Your task to perform on an android device: clear history in the chrome app Image 0: 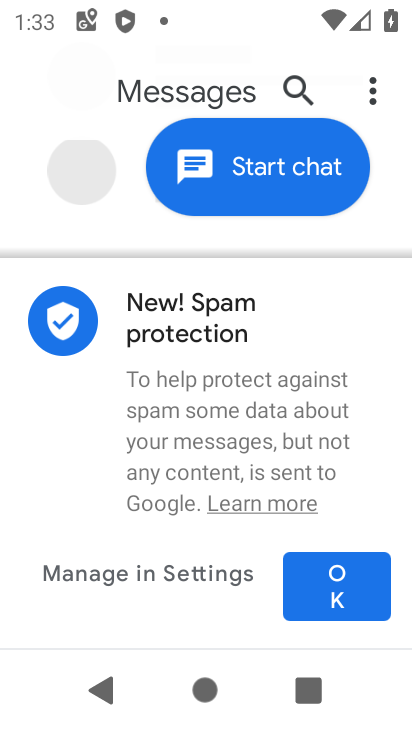
Step 0: press home button
Your task to perform on an android device: clear history in the chrome app Image 1: 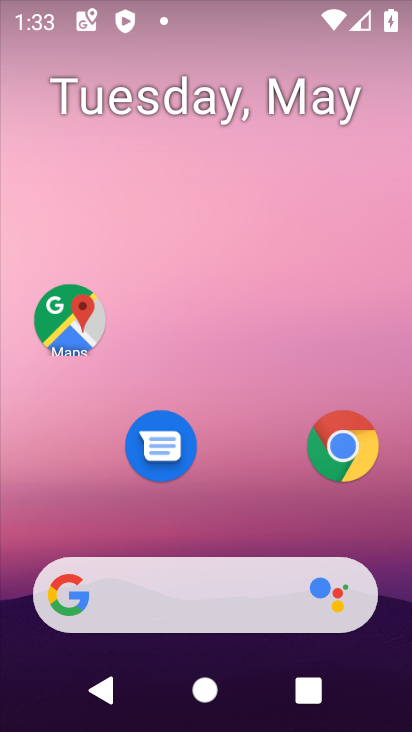
Step 1: click (323, 460)
Your task to perform on an android device: clear history in the chrome app Image 2: 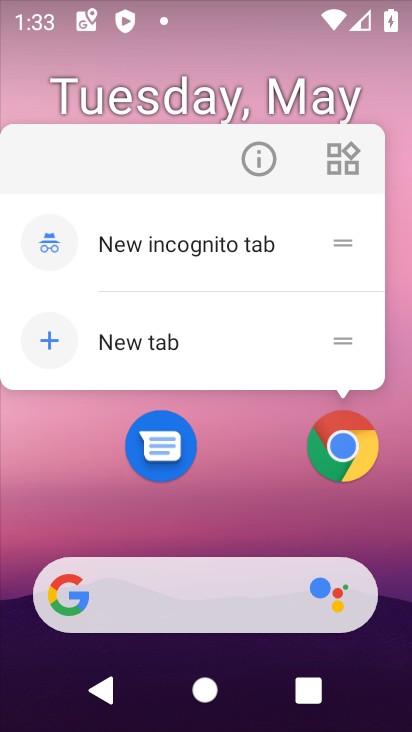
Step 2: click (334, 452)
Your task to perform on an android device: clear history in the chrome app Image 3: 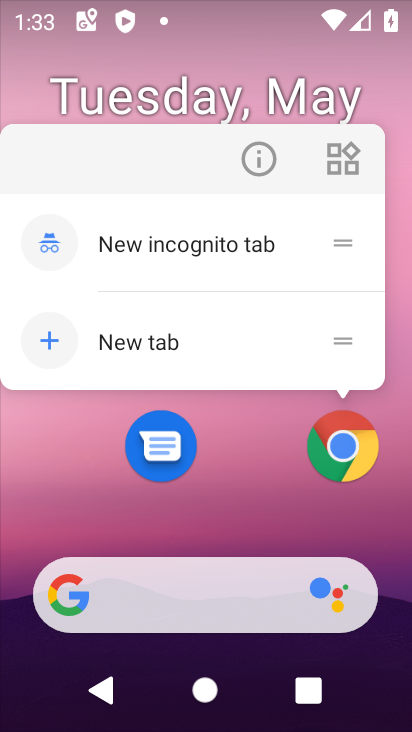
Step 3: click (354, 427)
Your task to perform on an android device: clear history in the chrome app Image 4: 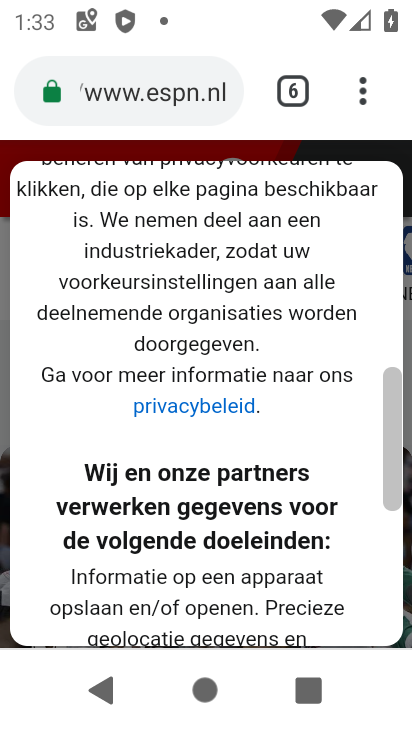
Step 4: click (355, 96)
Your task to perform on an android device: clear history in the chrome app Image 5: 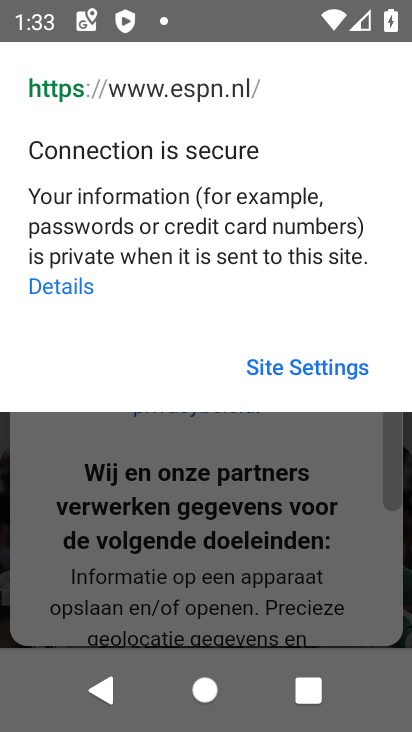
Step 5: click (330, 469)
Your task to perform on an android device: clear history in the chrome app Image 6: 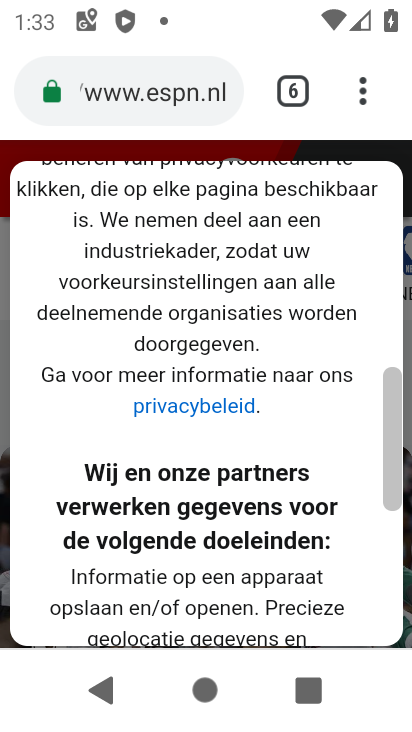
Step 6: drag from (356, 92) to (84, 502)
Your task to perform on an android device: clear history in the chrome app Image 7: 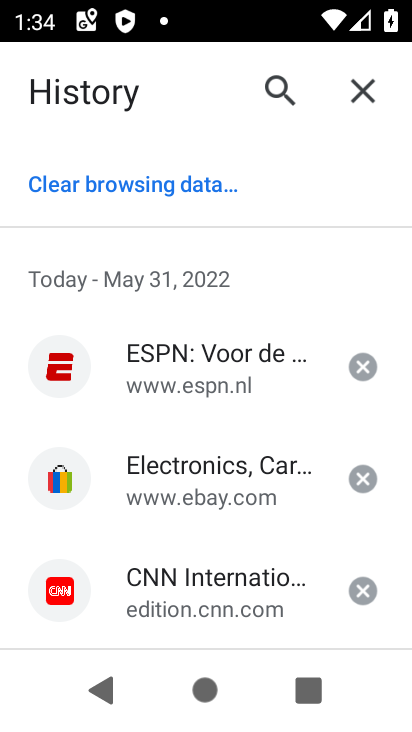
Step 7: drag from (126, 597) to (115, 529)
Your task to perform on an android device: clear history in the chrome app Image 8: 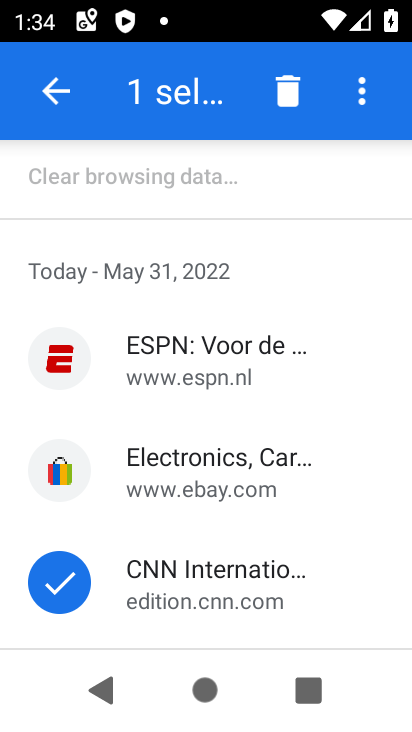
Step 8: drag from (116, 231) to (121, 477)
Your task to perform on an android device: clear history in the chrome app Image 9: 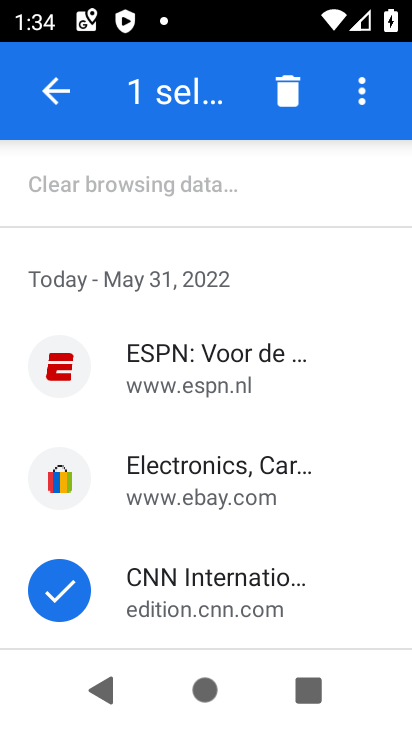
Step 9: click (80, 96)
Your task to perform on an android device: clear history in the chrome app Image 10: 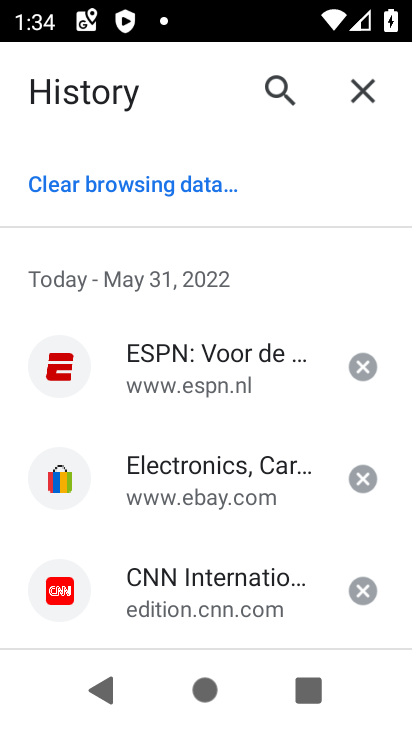
Step 10: click (109, 193)
Your task to perform on an android device: clear history in the chrome app Image 11: 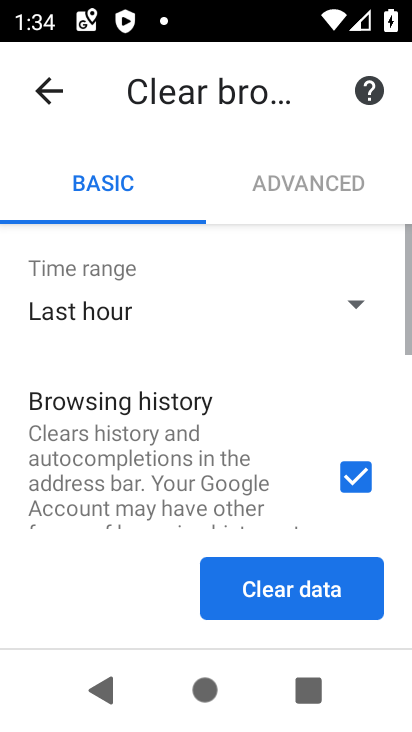
Step 11: click (286, 586)
Your task to perform on an android device: clear history in the chrome app Image 12: 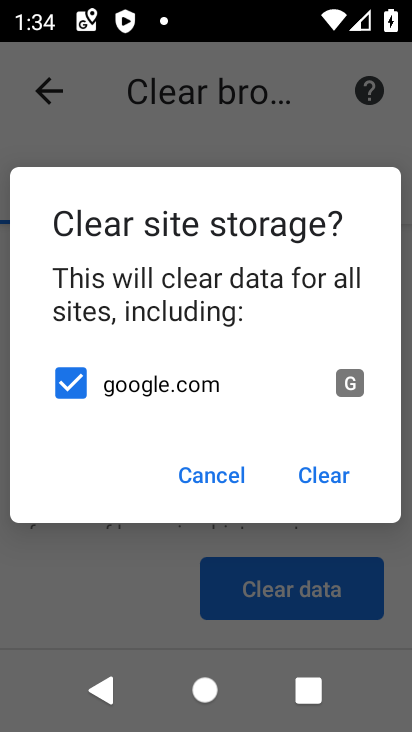
Step 12: click (327, 479)
Your task to perform on an android device: clear history in the chrome app Image 13: 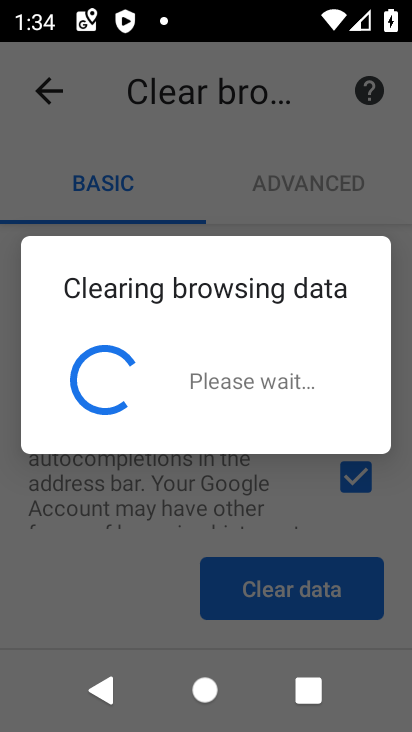
Step 13: task complete